Your task to perform on an android device: Open accessibility settings Image 0: 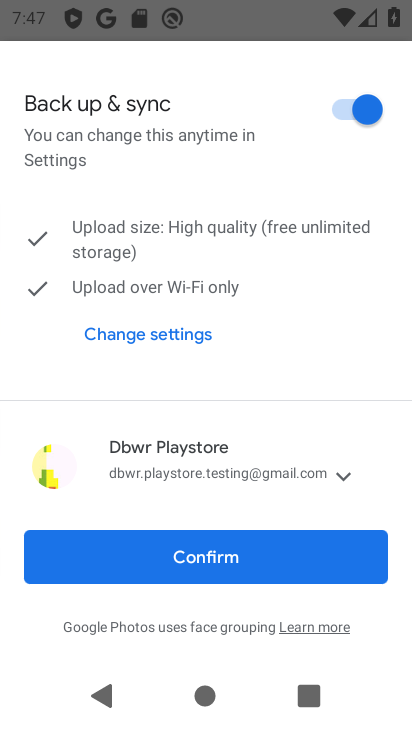
Step 0: press home button
Your task to perform on an android device: Open accessibility settings Image 1: 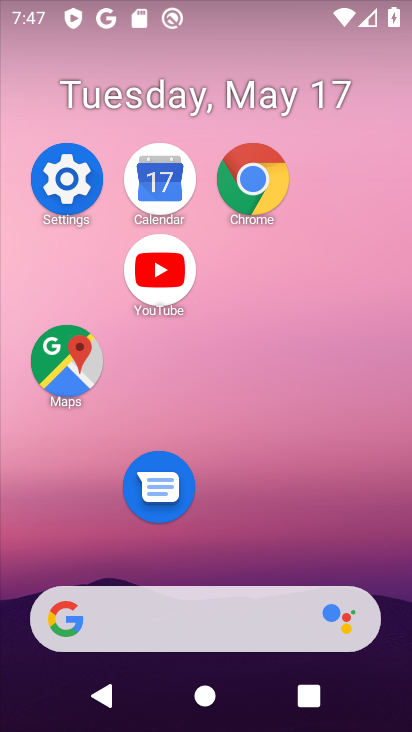
Step 1: click (90, 177)
Your task to perform on an android device: Open accessibility settings Image 2: 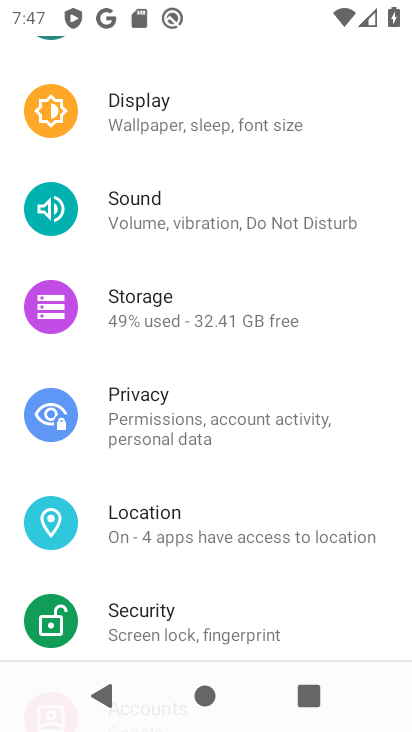
Step 2: drag from (277, 583) to (312, 224)
Your task to perform on an android device: Open accessibility settings Image 3: 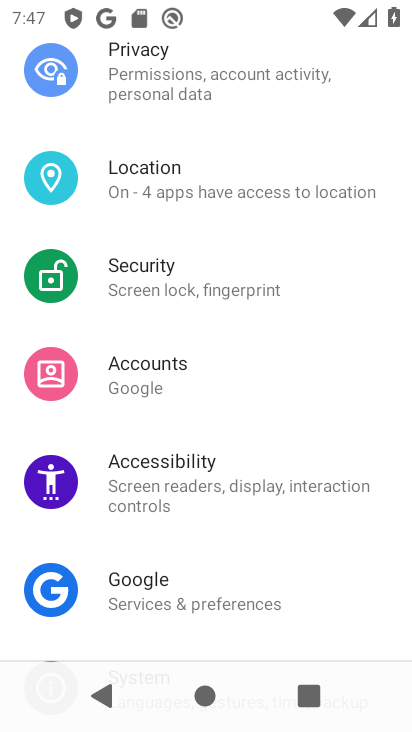
Step 3: click (217, 468)
Your task to perform on an android device: Open accessibility settings Image 4: 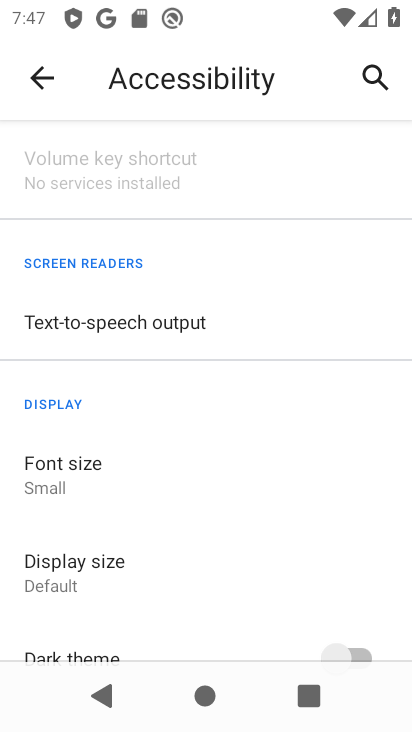
Step 4: task complete